Your task to perform on an android device: Open Wikipedia Image 0: 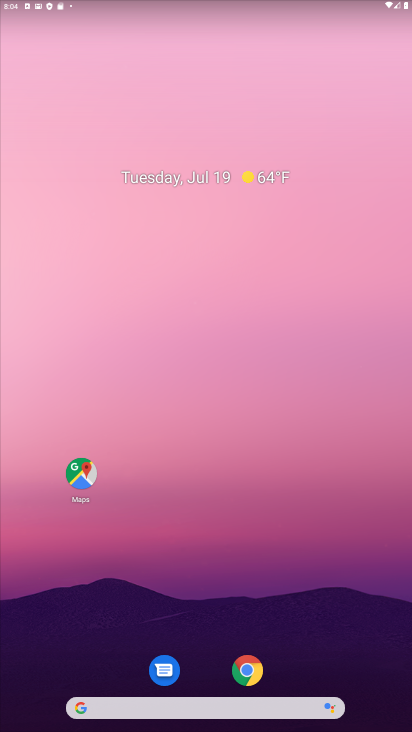
Step 0: click (147, 700)
Your task to perform on an android device: Open Wikipedia Image 1: 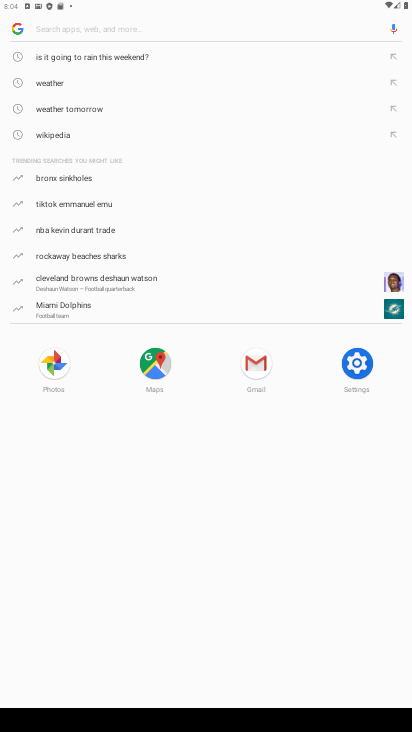
Step 1: type "wikipedia"
Your task to perform on an android device: Open Wikipedia Image 2: 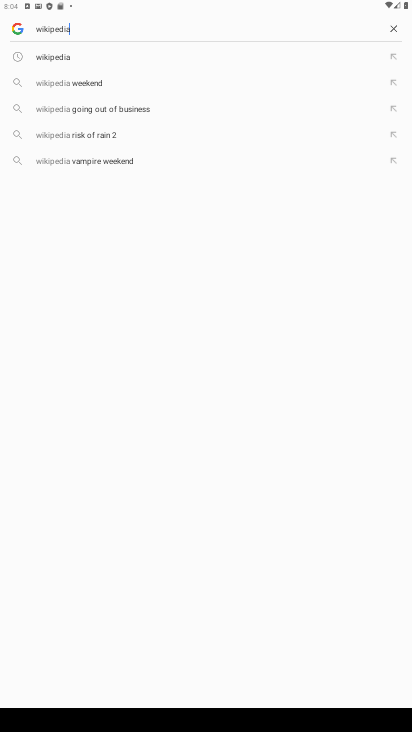
Step 2: click (97, 54)
Your task to perform on an android device: Open Wikipedia Image 3: 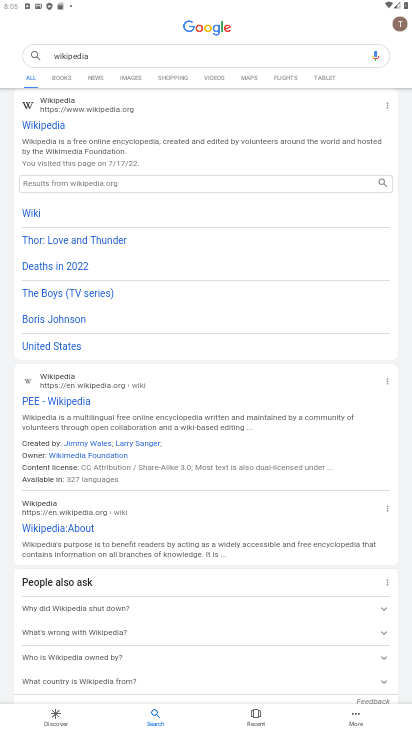
Step 3: click (58, 101)
Your task to perform on an android device: Open Wikipedia Image 4: 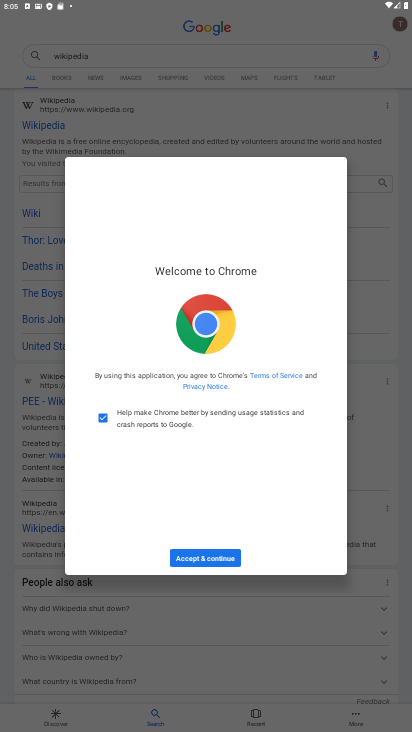
Step 4: click (221, 560)
Your task to perform on an android device: Open Wikipedia Image 5: 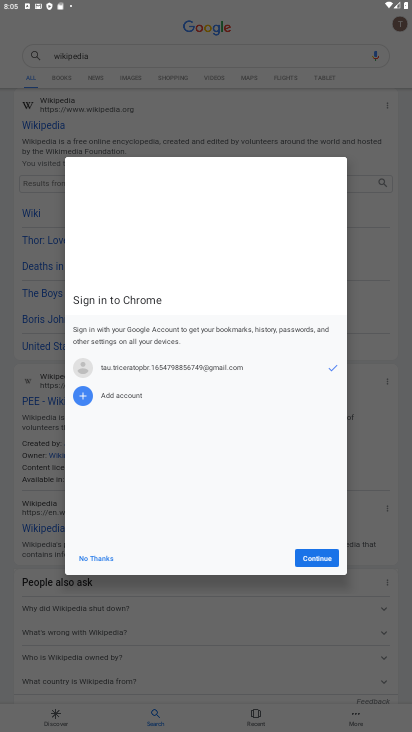
Step 5: click (301, 560)
Your task to perform on an android device: Open Wikipedia Image 6: 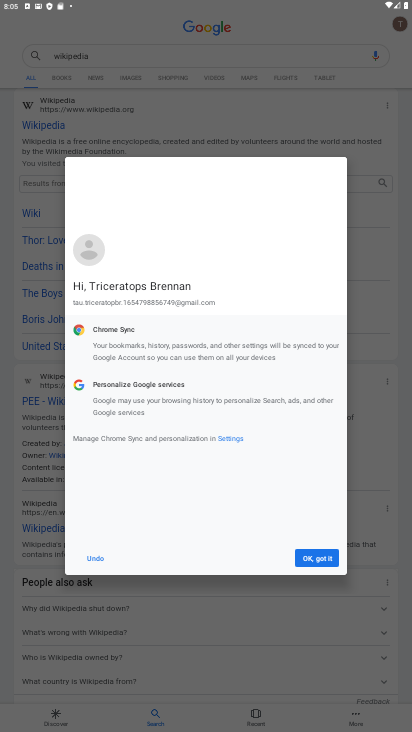
Step 6: click (305, 553)
Your task to perform on an android device: Open Wikipedia Image 7: 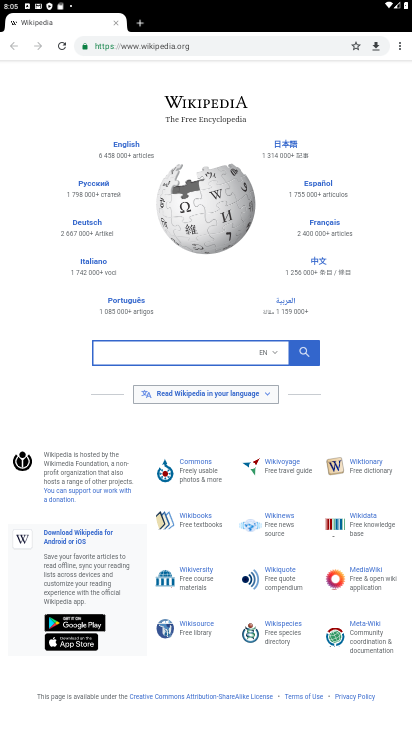
Step 7: task complete